Your task to perform on an android device: Go to location settings Image 0: 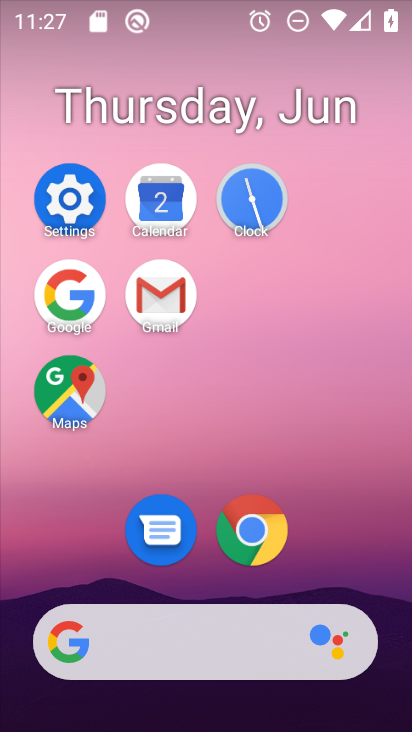
Step 0: click (65, 199)
Your task to perform on an android device: Go to location settings Image 1: 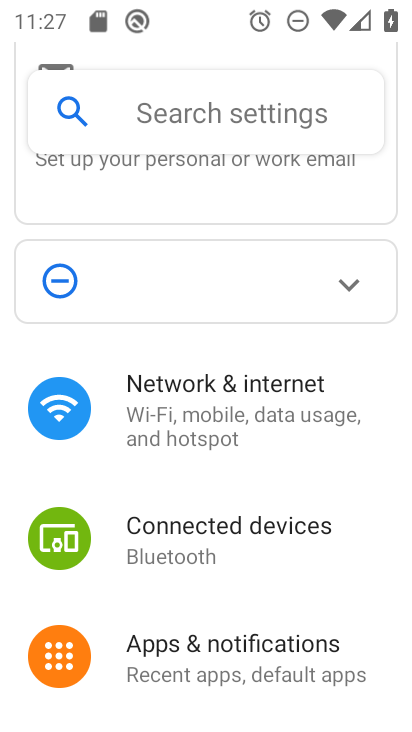
Step 1: click (274, 393)
Your task to perform on an android device: Go to location settings Image 2: 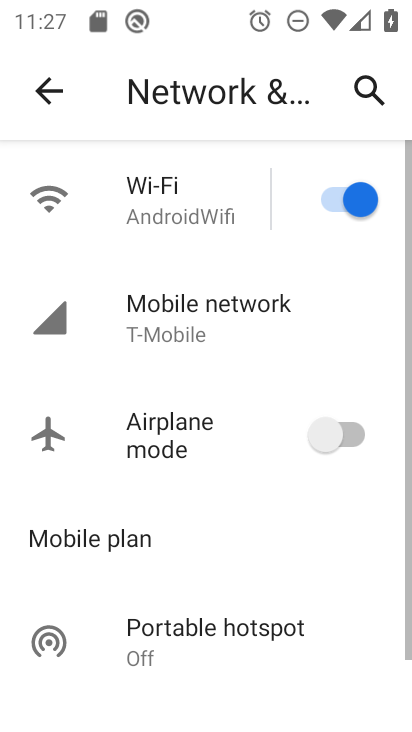
Step 2: click (32, 92)
Your task to perform on an android device: Go to location settings Image 3: 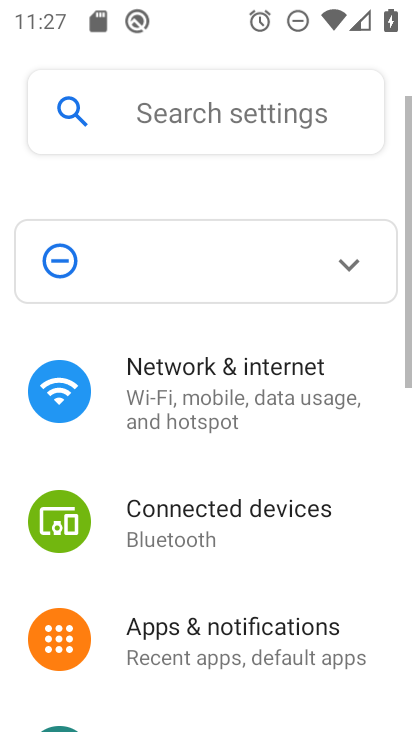
Step 3: drag from (313, 620) to (376, 141)
Your task to perform on an android device: Go to location settings Image 4: 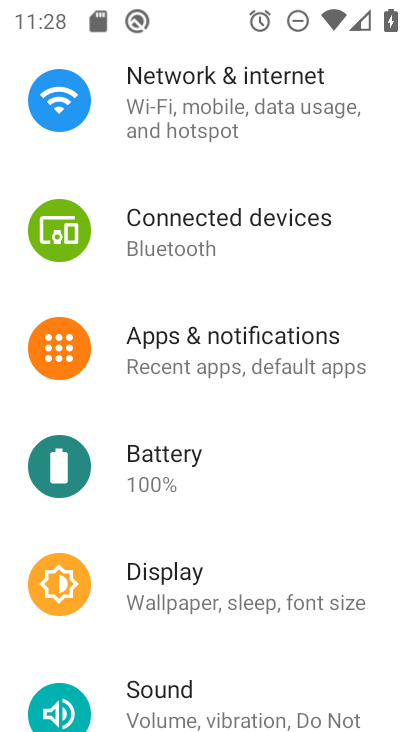
Step 4: drag from (287, 538) to (303, 160)
Your task to perform on an android device: Go to location settings Image 5: 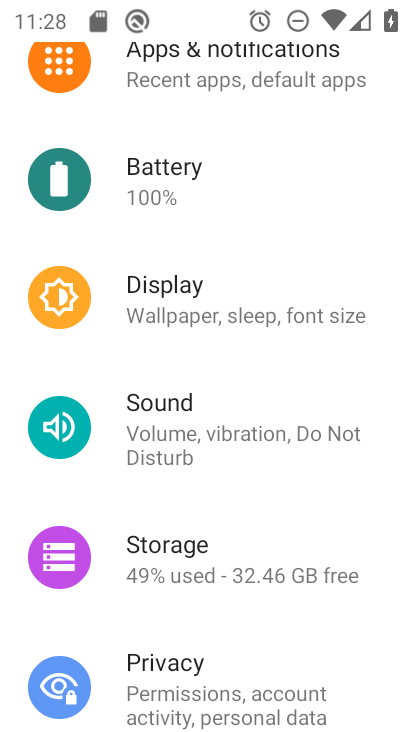
Step 5: drag from (253, 627) to (302, 211)
Your task to perform on an android device: Go to location settings Image 6: 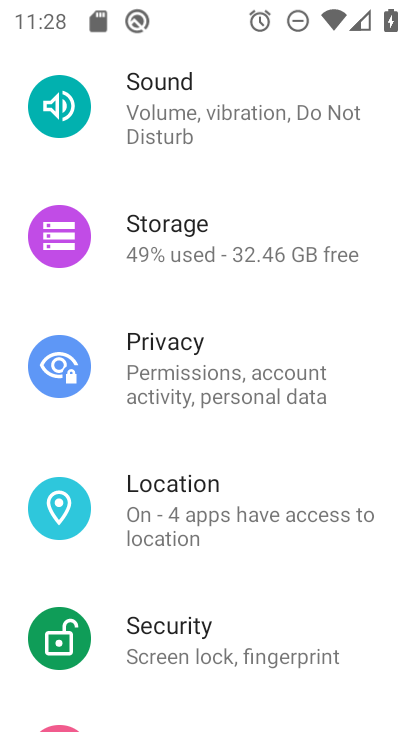
Step 6: click (266, 492)
Your task to perform on an android device: Go to location settings Image 7: 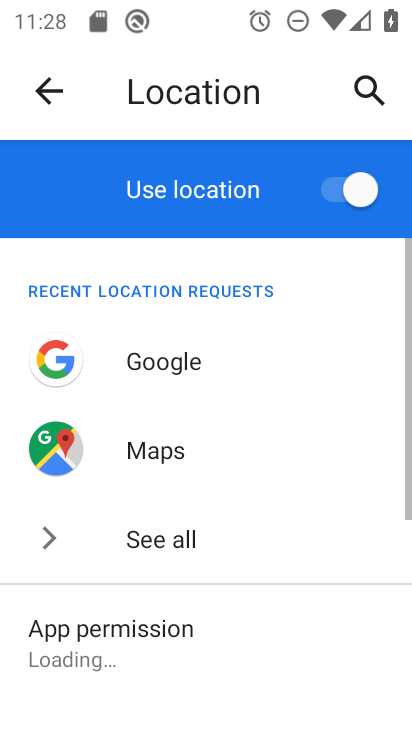
Step 7: task complete